Your task to perform on an android device: Open Google Chrome Image 0: 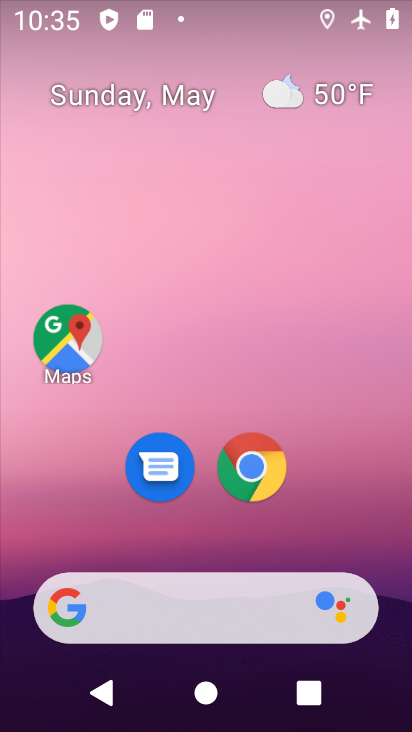
Step 0: click (248, 473)
Your task to perform on an android device: Open Google Chrome Image 1: 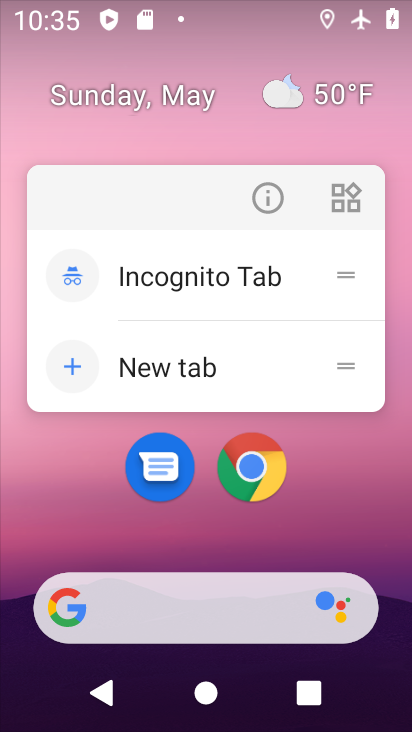
Step 1: click (248, 473)
Your task to perform on an android device: Open Google Chrome Image 2: 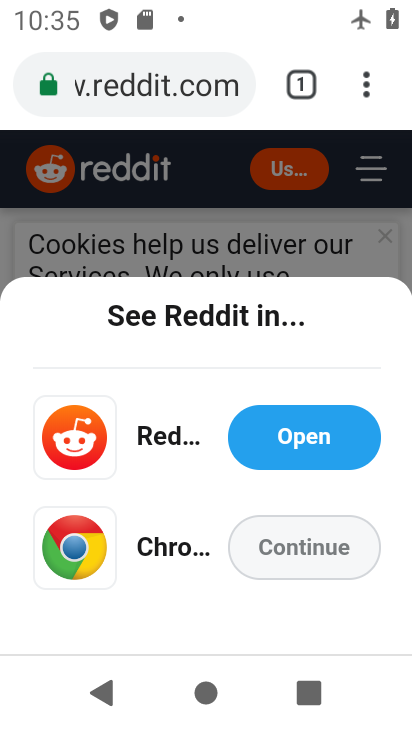
Step 2: task complete